Your task to perform on an android device: show emergency info Image 0: 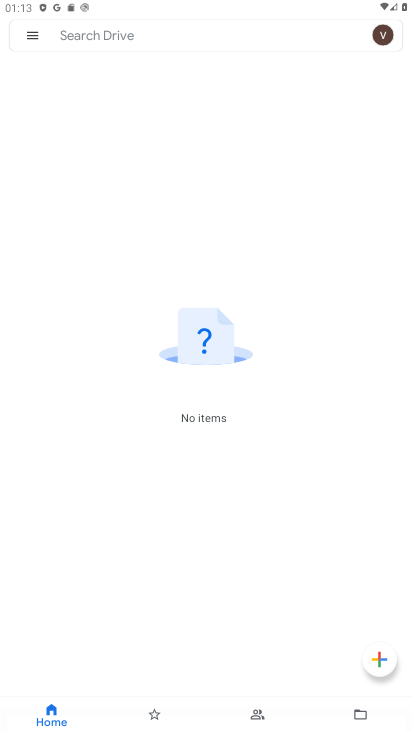
Step 0: press home button
Your task to perform on an android device: show emergency info Image 1: 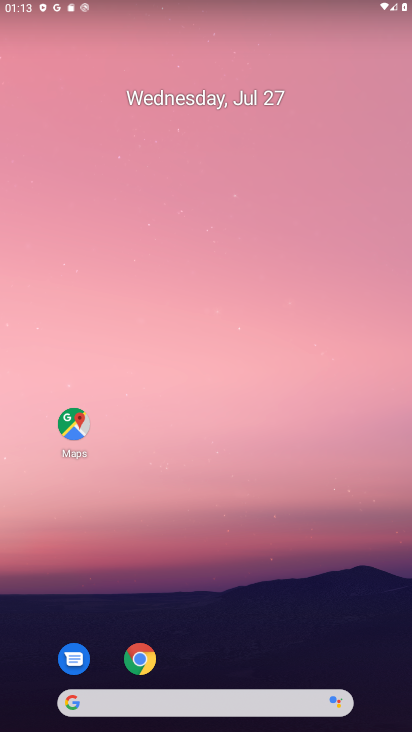
Step 1: drag from (326, 623) to (189, 69)
Your task to perform on an android device: show emergency info Image 2: 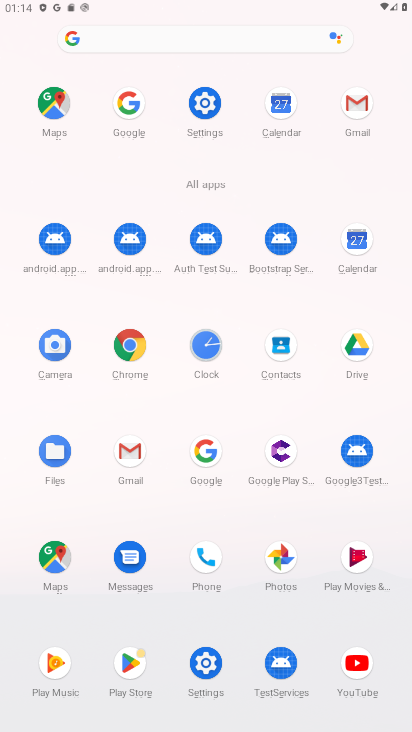
Step 2: drag from (318, 632) to (234, 343)
Your task to perform on an android device: show emergency info Image 3: 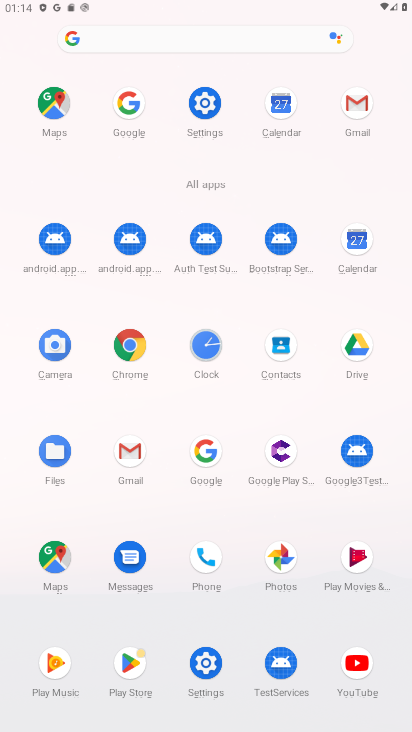
Step 3: click (202, 649)
Your task to perform on an android device: show emergency info Image 4: 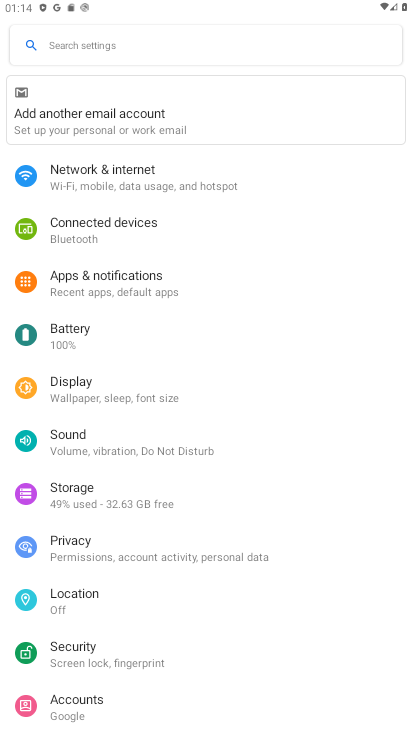
Step 4: drag from (239, 653) to (150, 147)
Your task to perform on an android device: show emergency info Image 5: 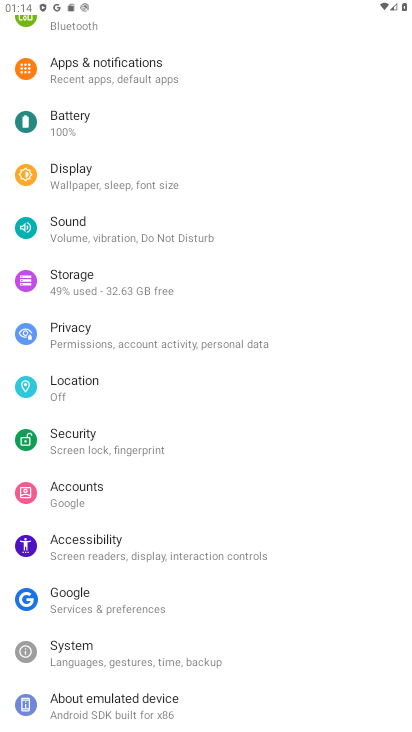
Step 5: click (169, 703)
Your task to perform on an android device: show emergency info Image 6: 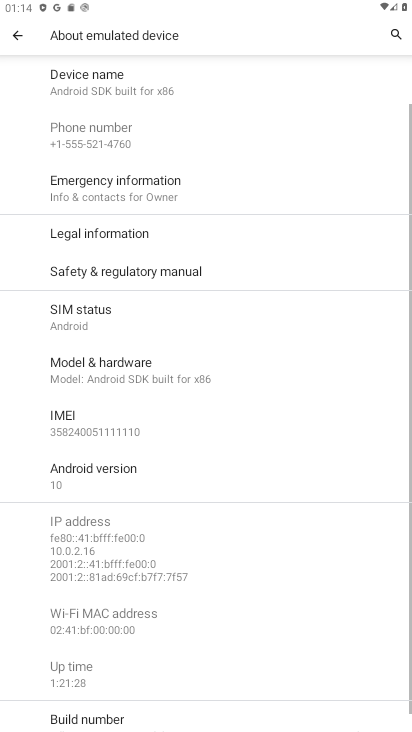
Step 6: click (109, 184)
Your task to perform on an android device: show emergency info Image 7: 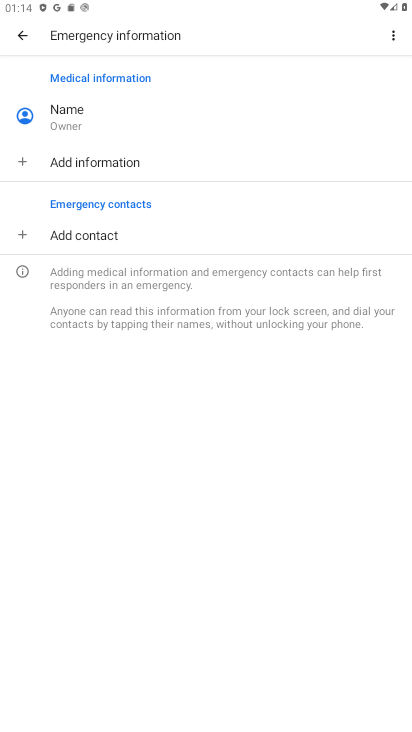
Step 7: task complete